Your task to perform on an android device: Open internet settings Image 0: 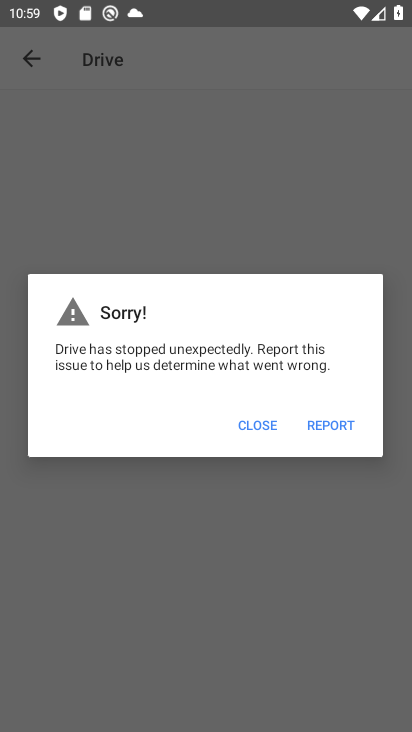
Step 0: press back button
Your task to perform on an android device: Open internet settings Image 1: 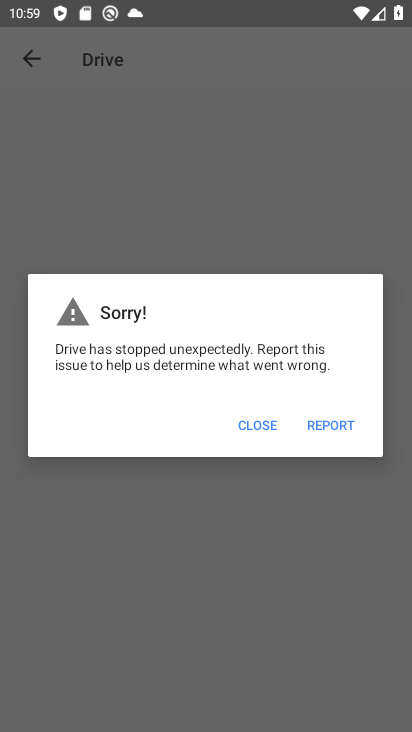
Step 1: click (255, 423)
Your task to perform on an android device: Open internet settings Image 2: 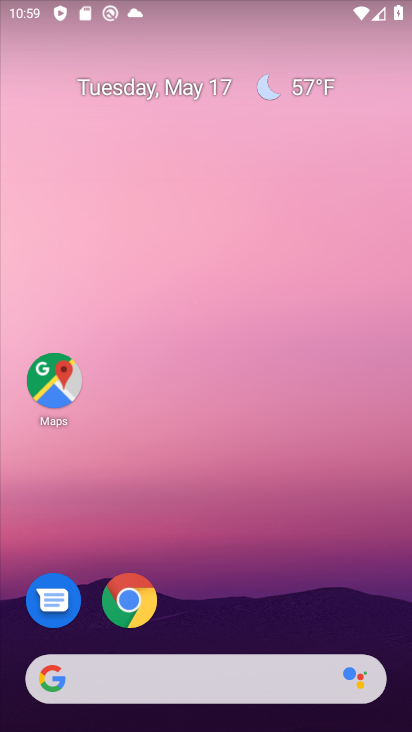
Step 2: drag from (273, 604) to (216, 116)
Your task to perform on an android device: Open internet settings Image 3: 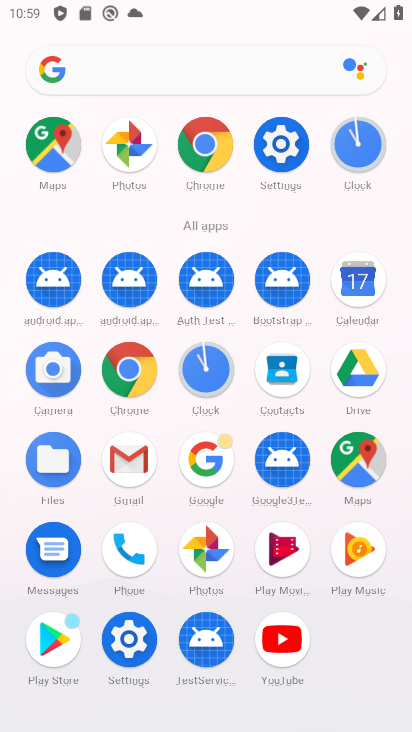
Step 3: click (281, 138)
Your task to perform on an android device: Open internet settings Image 4: 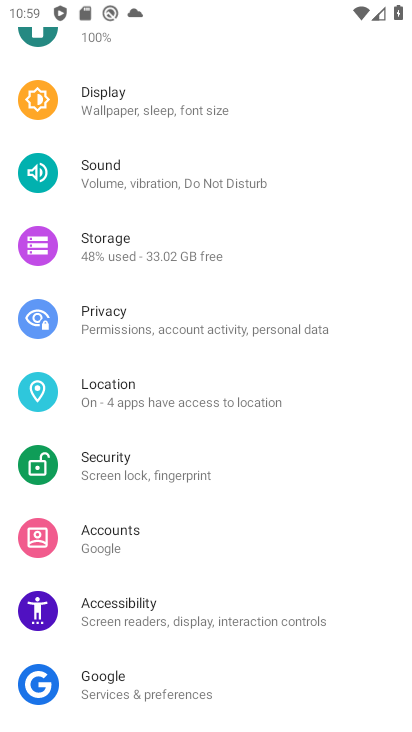
Step 4: drag from (136, 159) to (235, 671)
Your task to perform on an android device: Open internet settings Image 5: 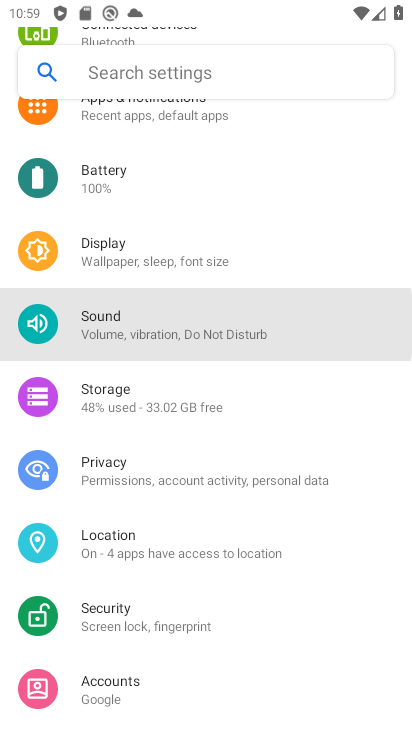
Step 5: drag from (186, 196) to (257, 527)
Your task to perform on an android device: Open internet settings Image 6: 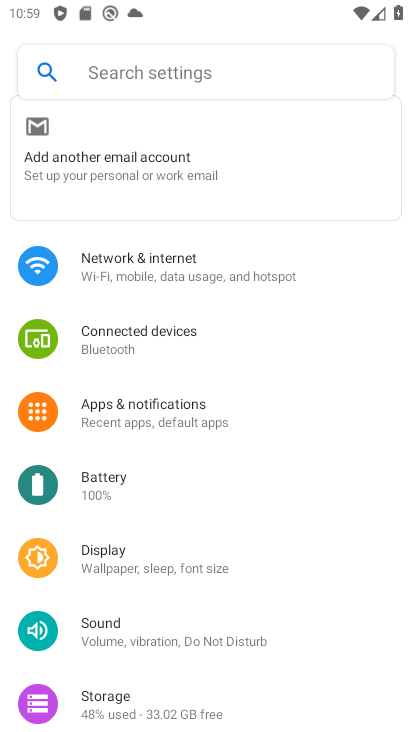
Step 6: click (167, 259)
Your task to perform on an android device: Open internet settings Image 7: 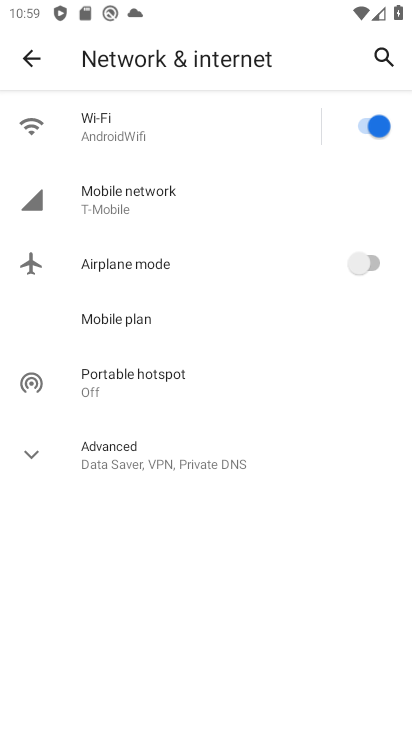
Step 7: click (139, 200)
Your task to perform on an android device: Open internet settings Image 8: 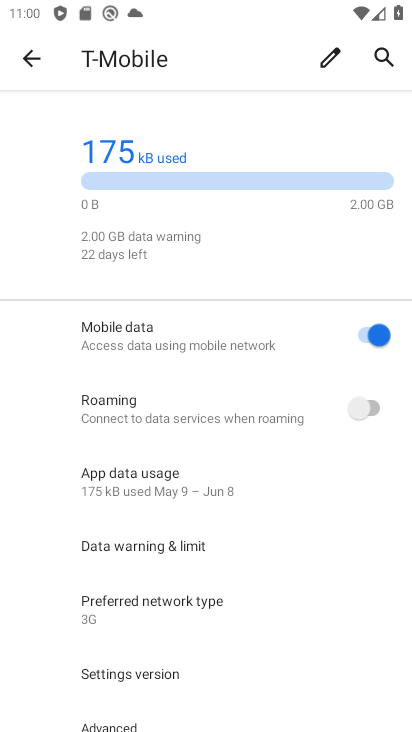
Step 8: task complete